Your task to perform on an android device: check the backup settings in the google photos Image 0: 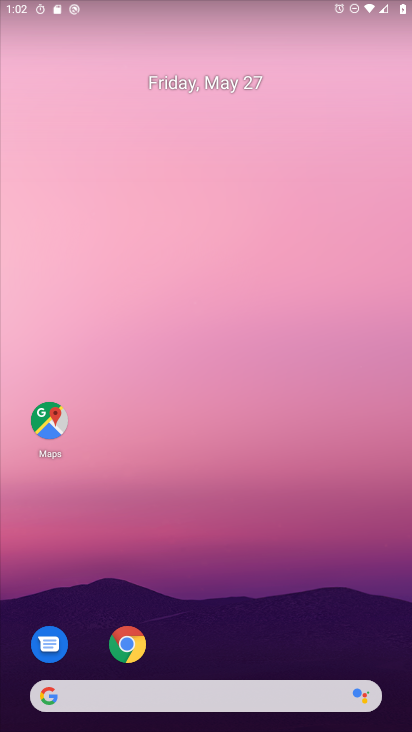
Step 0: drag from (208, 641) to (197, 170)
Your task to perform on an android device: check the backup settings in the google photos Image 1: 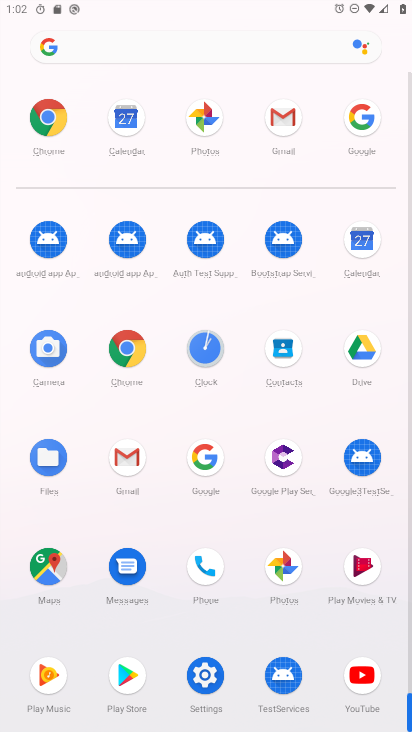
Step 1: click (203, 116)
Your task to perform on an android device: check the backup settings in the google photos Image 2: 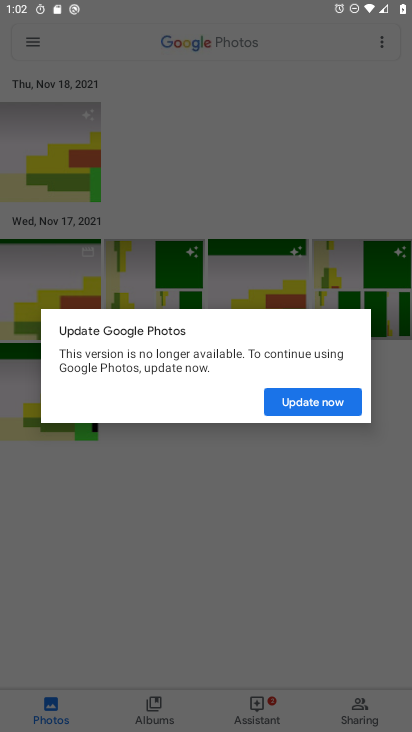
Step 2: click (291, 398)
Your task to perform on an android device: check the backup settings in the google photos Image 3: 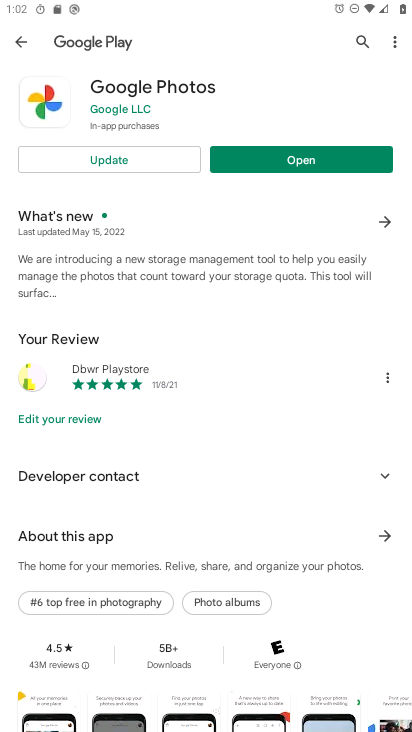
Step 3: click (265, 162)
Your task to perform on an android device: check the backup settings in the google photos Image 4: 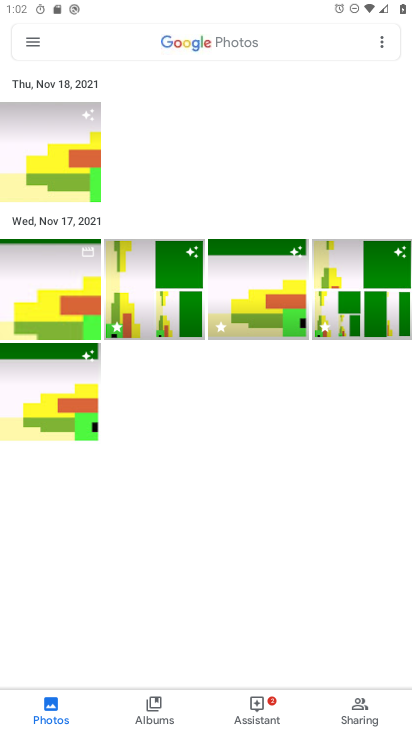
Step 4: click (32, 49)
Your task to perform on an android device: check the backup settings in the google photos Image 5: 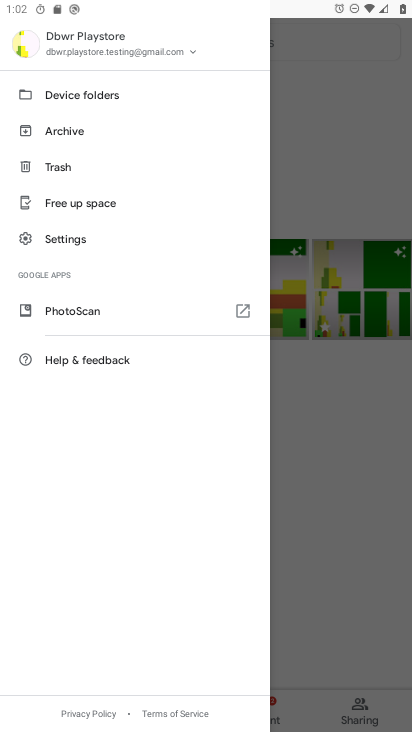
Step 5: click (70, 239)
Your task to perform on an android device: check the backup settings in the google photos Image 6: 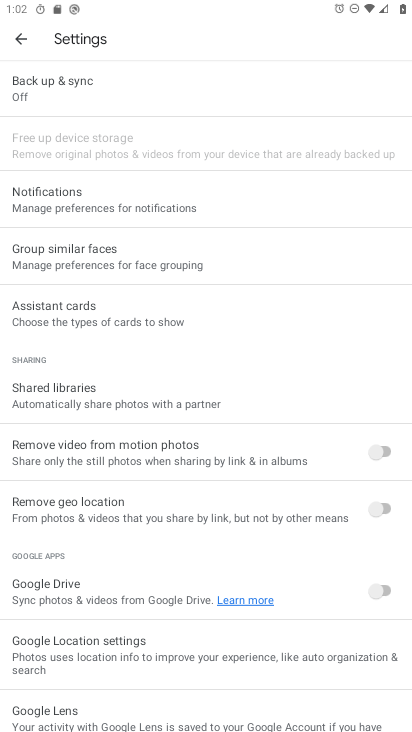
Step 6: click (129, 403)
Your task to perform on an android device: check the backup settings in the google photos Image 7: 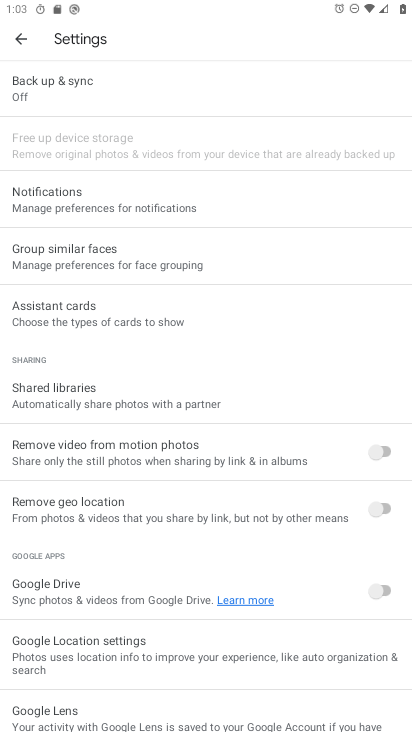
Step 7: click (107, 100)
Your task to perform on an android device: check the backup settings in the google photos Image 8: 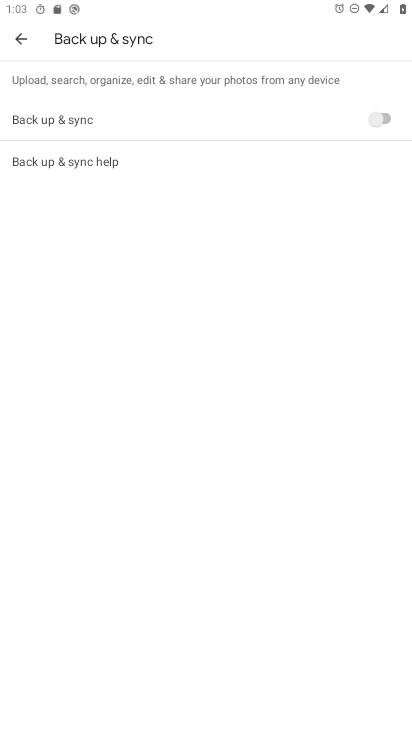
Step 8: task complete